Your task to perform on an android device: turn off location Image 0: 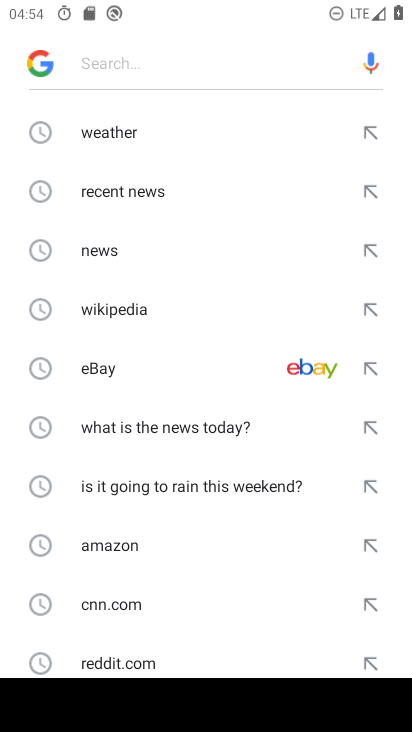
Step 0: press back button
Your task to perform on an android device: turn off location Image 1: 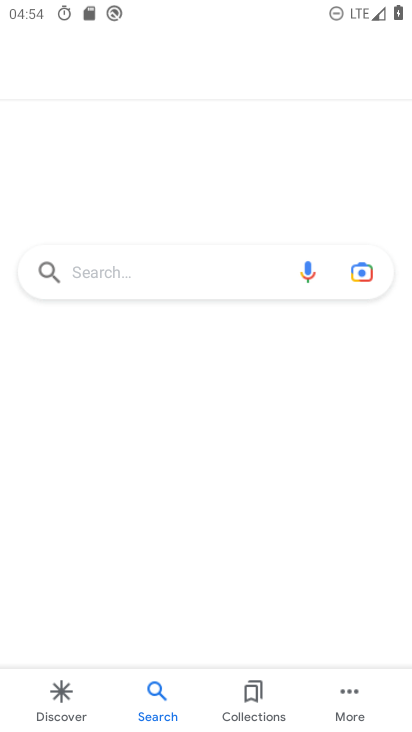
Step 1: press home button
Your task to perform on an android device: turn off location Image 2: 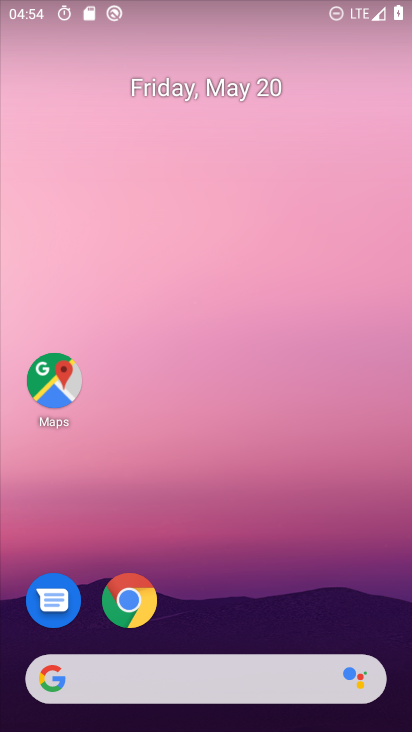
Step 2: drag from (246, 603) to (334, 46)
Your task to perform on an android device: turn off location Image 3: 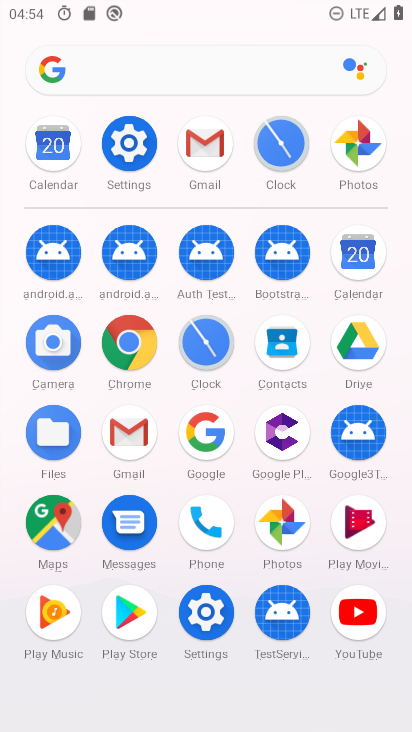
Step 3: click (130, 144)
Your task to perform on an android device: turn off location Image 4: 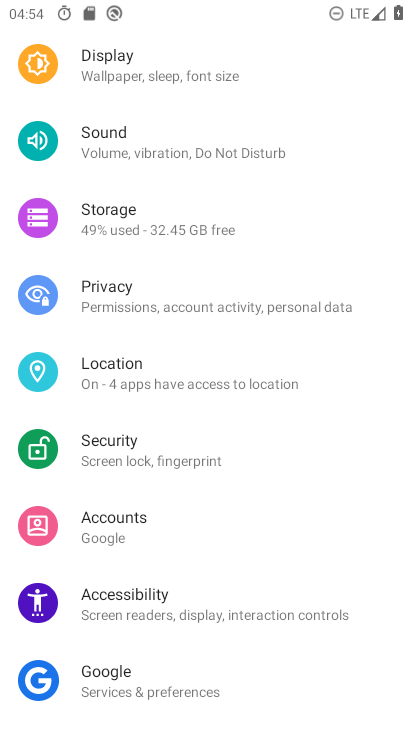
Step 4: click (132, 376)
Your task to perform on an android device: turn off location Image 5: 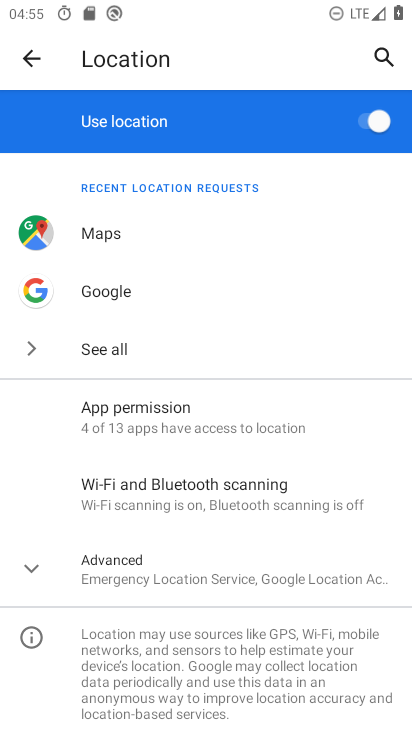
Step 5: click (378, 122)
Your task to perform on an android device: turn off location Image 6: 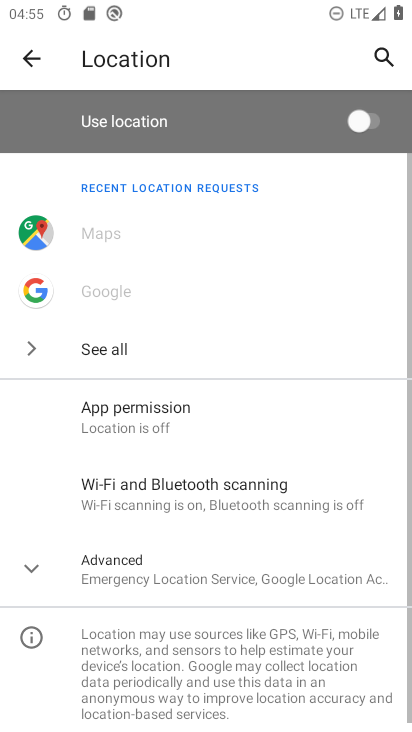
Step 6: task complete